Your task to perform on an android device: delete the emails in spam in the gmail app Image 0: 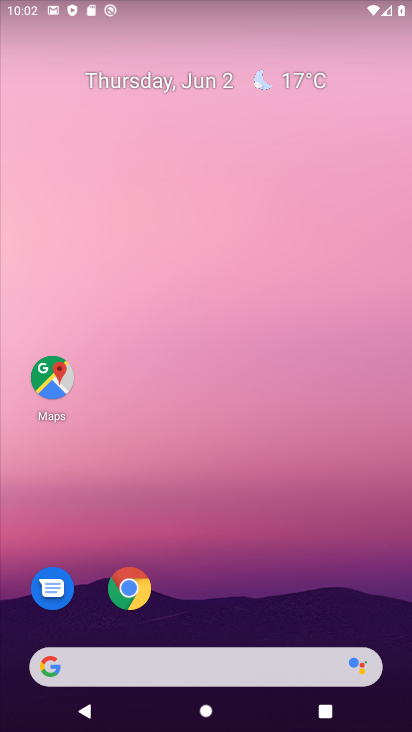
Step 0: drag from (249, 687) to (341, 5)
Your task to perform on an android device: delete the emails in spam in the gmail app Image 1: 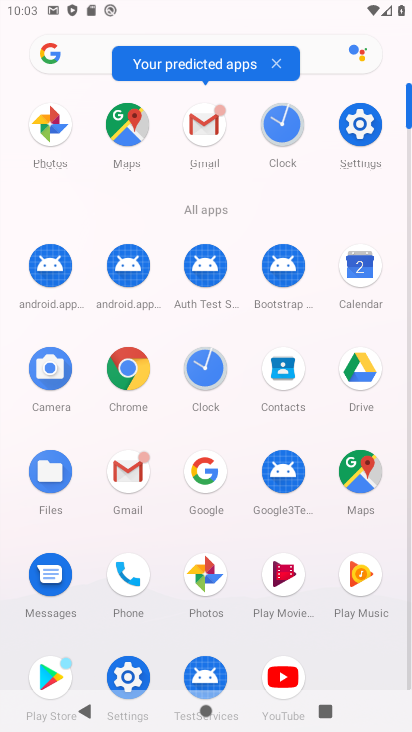
Step 1: drag from (137, 477) to (285, 599)
Your task to perform on an android device: delete the emails in spam in the gmail app Image 2: 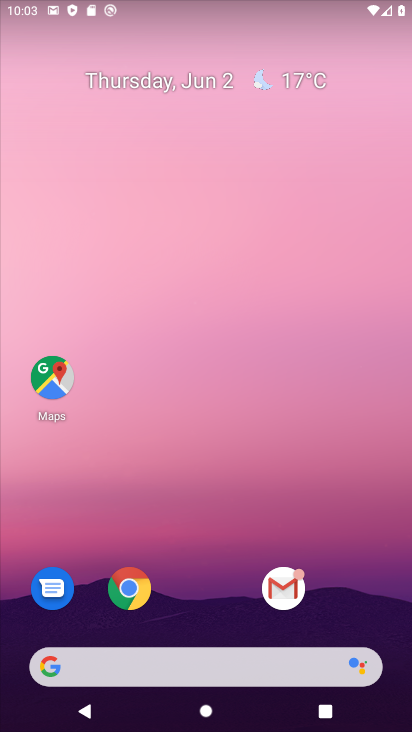
Step 2: click (288, 596)
Your task to perform on an android device: delete the emails in spam in the gmail app Image 3: 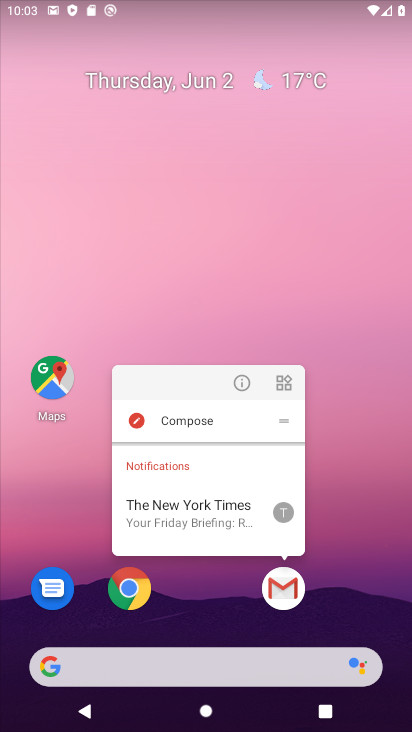
Step 3: click (255, 694)
Your task to perform on an android device: delete the emails in spam in the gmail app Image 4: 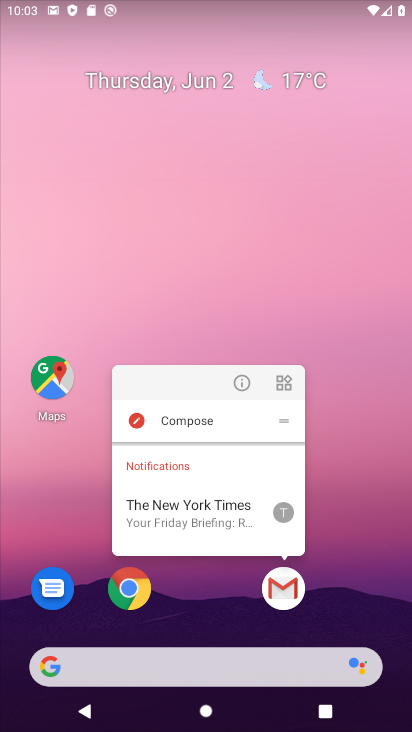
Step 4: click (317, 596)
Your task to perform on an android device: delete the emails in spam in the gmail app Image 5: 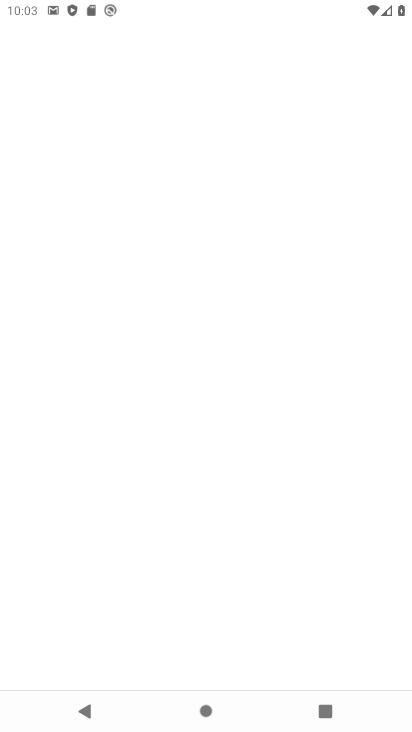
Step 5: click (291, 579)
Your task to perform on an android device: delete the emails in spam in the gmail app Image 6: 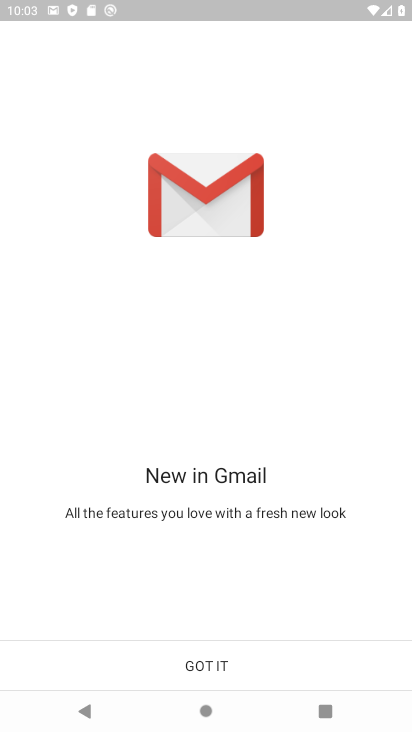
Step 6: click (181, 674)
Your task to perform on an android device: delete the emails in spam in the gmail app Image 7: 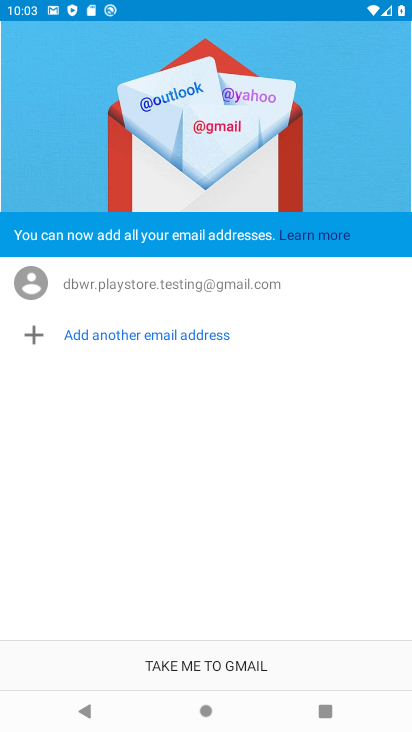
Step 7: click (181, 674)
Your task to perform on an android device: delete the emails in spam in the gmail app Image 8: 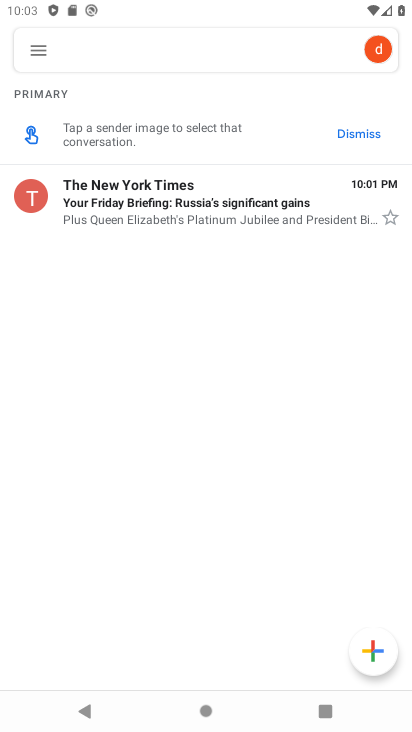
Step 8: click (35, 56)
Your task to perform on an android device: delete the emails in spam in the gmail app Image 9: 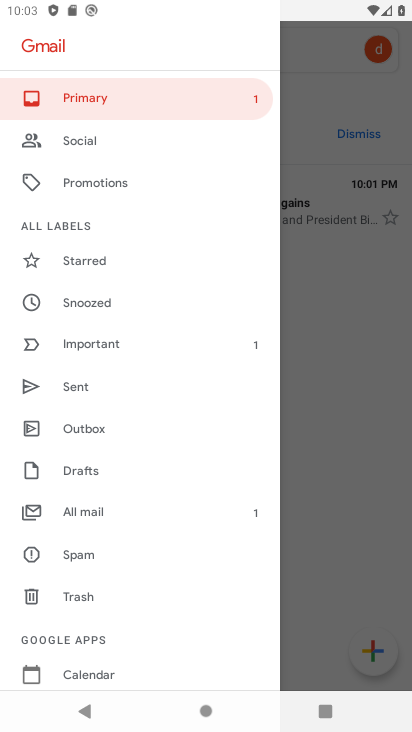
Step 9: click (334, 336)
Your task to perform on an android device: delete the emails in spam in the gmail app Image 10: 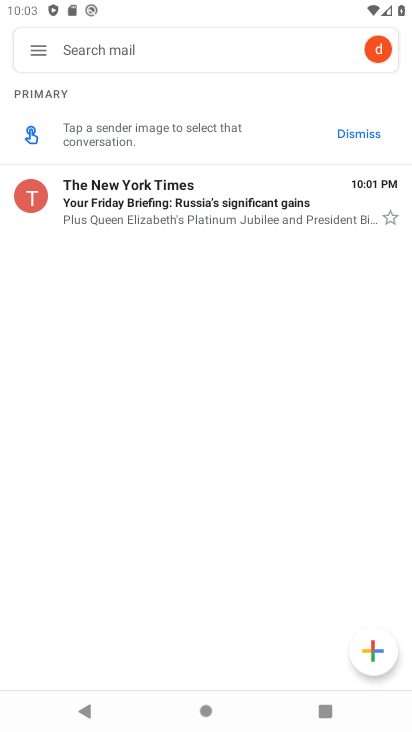
Step 10: click (230, 215)
Your task to perform on an android device: delete the emails in spam in the gmail app Image 11: 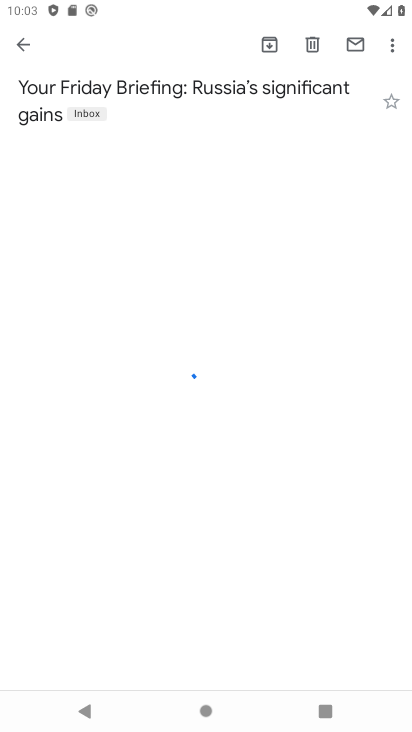
Step 11: click (309, 58)
Your task to perform on an android device: delete the emails in spam in the gmail app Image 12: 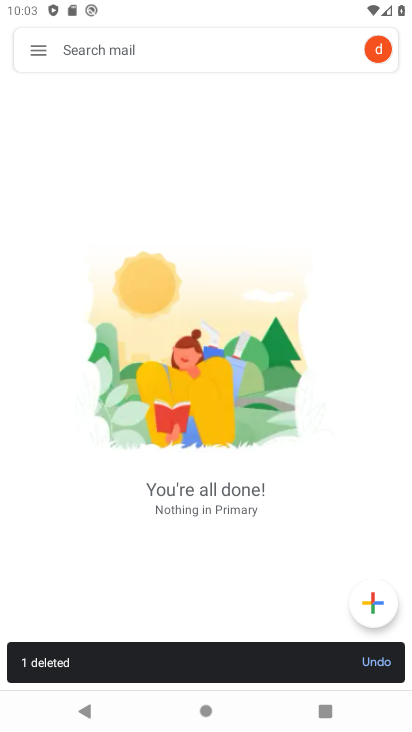
Step 12: task complete